Your task to perform on an android device: What is the recent news? Image 0: 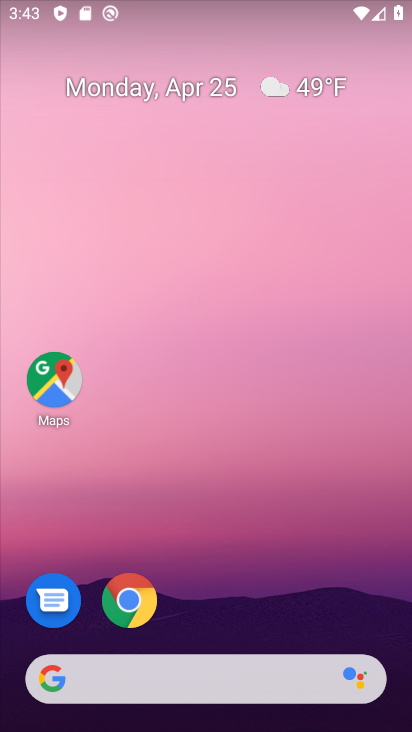
Step 0: click (130, 673)
Your task to perform on an android device: What is the recent news? Image 1: 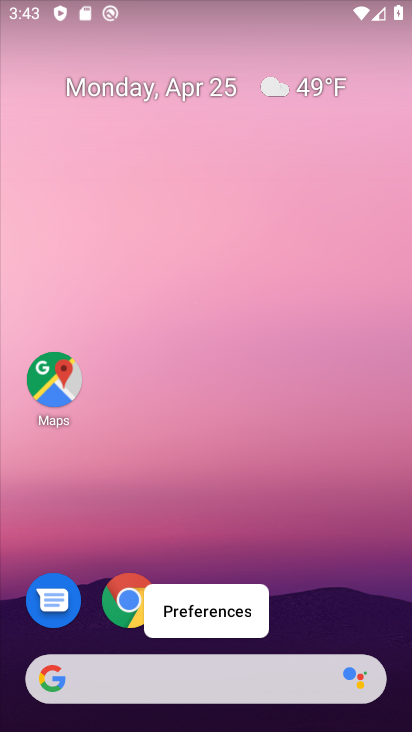
Step 1: click (130, 673)
Your task to perform on an android device: What is the recent news? Image 2: 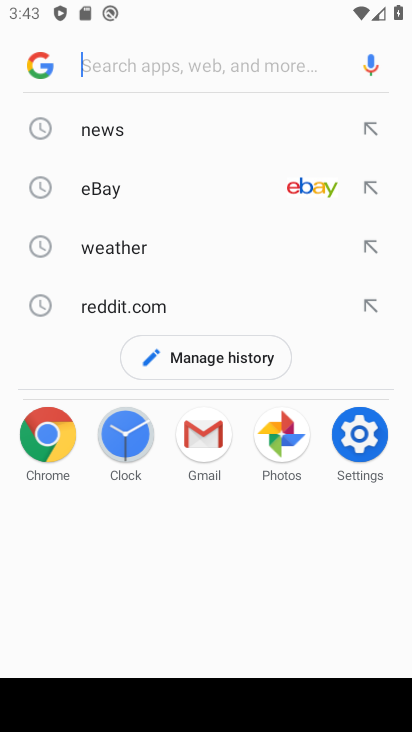
Step 2: click (106, 127)
Your task to perform on an android device: What is the recent news? Image 3: 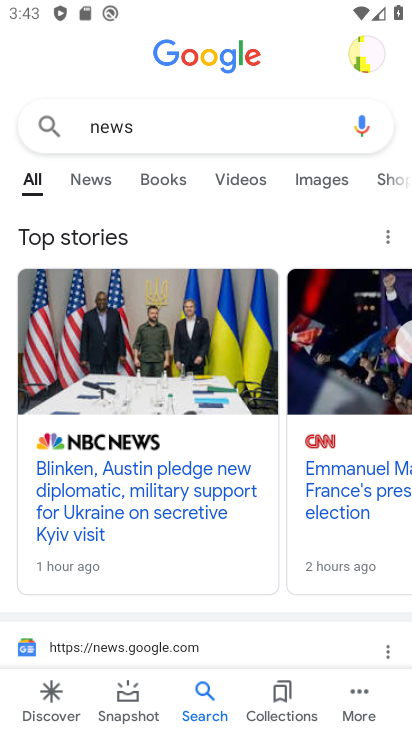
Step 3: click (163, 376)
Your task to perform on an android device: What is the recent news? Image 4: 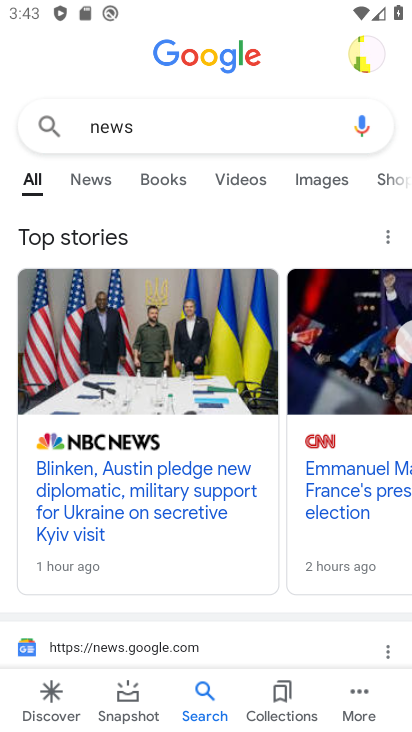
Step 4: task complete